Your task to perform on an android device: Open settings on Google Maps Image 0: 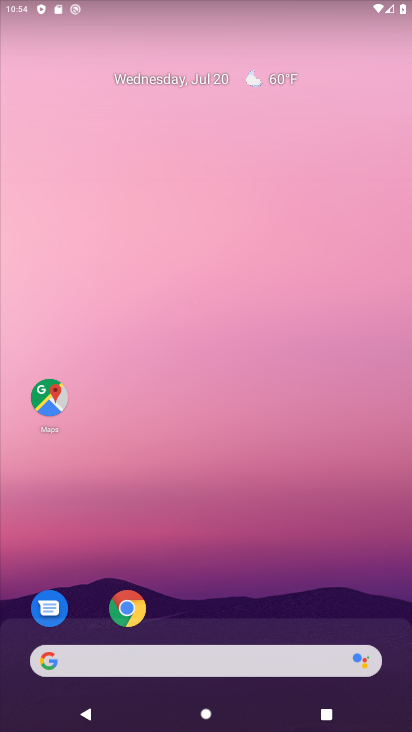
Step 0: click (26, 397)
Your task to perform on an android device: Open settings on Google Maps Image 1: 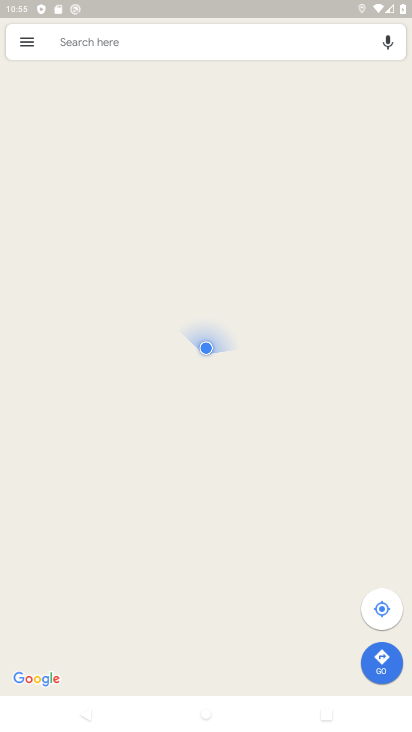
Step 1: click (31, 44)
Your task to perform on an android device: Open settings on Google Maps Image 2: 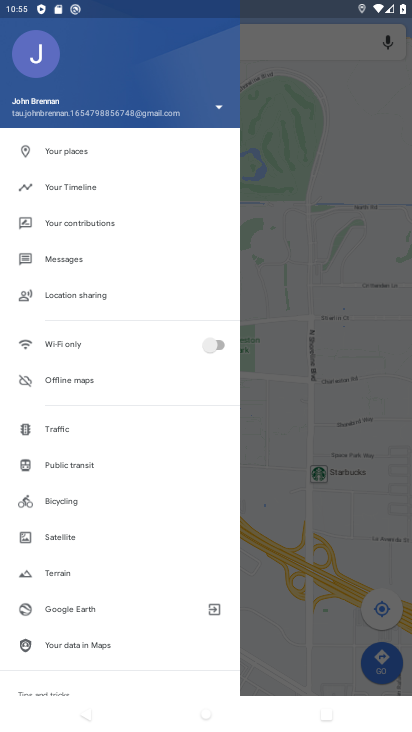
Step 2: drag from (130, 629) to (90, 415)
Your task to perform on an android device: Open settings on Google Maps Image 3: 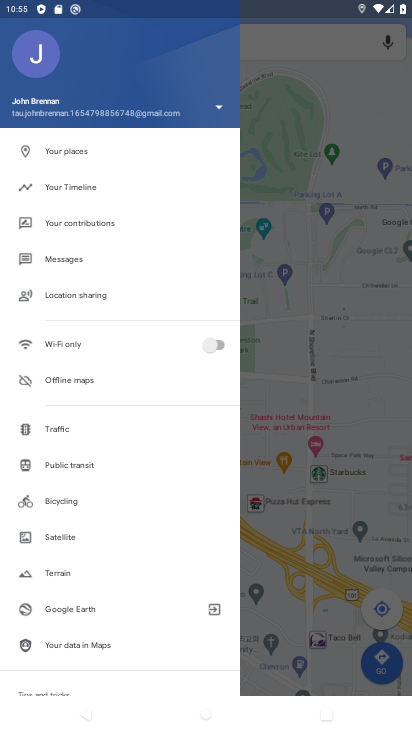
Step 3: drag from (59, 670) to (44, 343)
Your task to perform on an android device: Open settings on Google Maps Image 4: 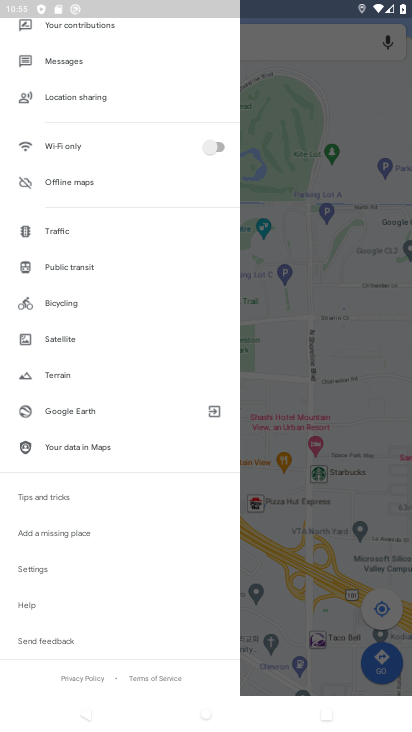
Step 4: click (47, 567)
Your task to perform on an android device: Open settings on Google Maps Image 5: 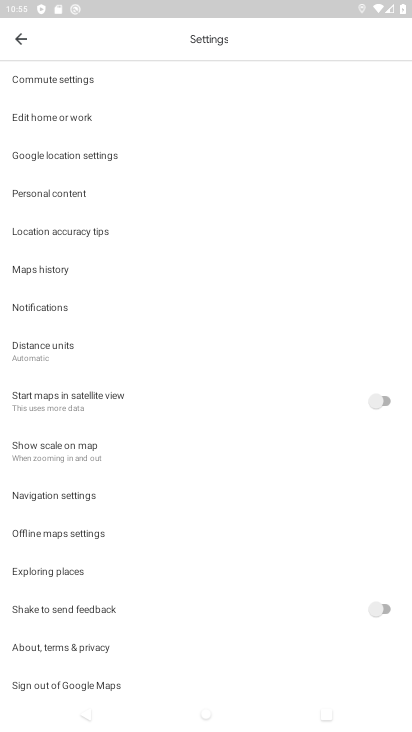
Step 5: task complete